Your task to perform on an android device: Open wifi settings Image 0: 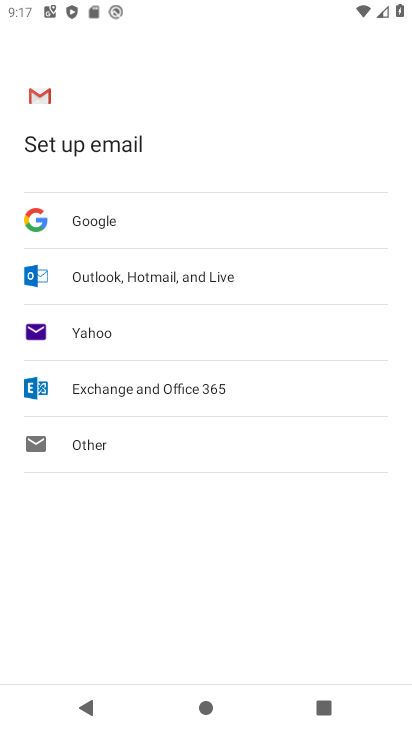
Step 0: press home button
Your task to perform on an android device: Open wifi settings Image 1: 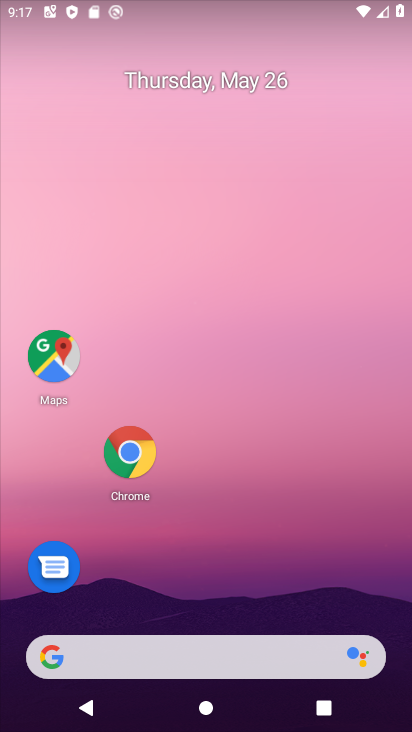
Step 1: drag from (147, 660) to (289, 105)
Your task to perform on an android device: Open wifi settings Image 2: 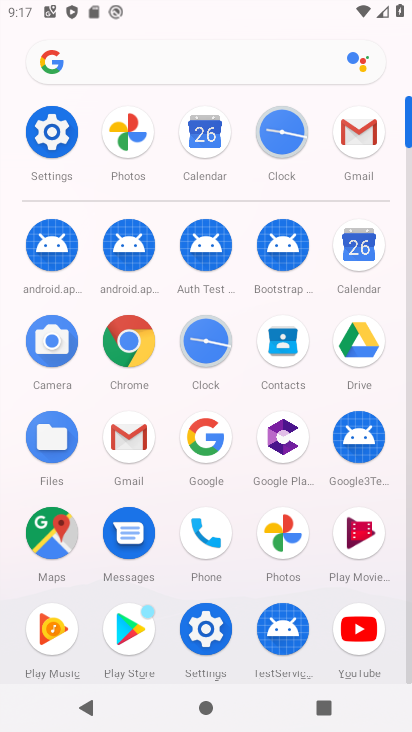
Step 2: click (54, 138)
Your task to perform on an android device: Open wifi settings Image 3: 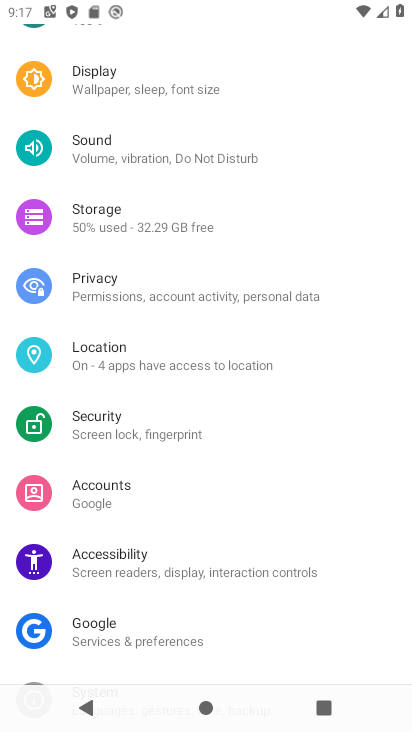
Step 3: drag from (307, 89) to (304, 595)
Your task to perform on an android device: Open wifi settings Image 4: 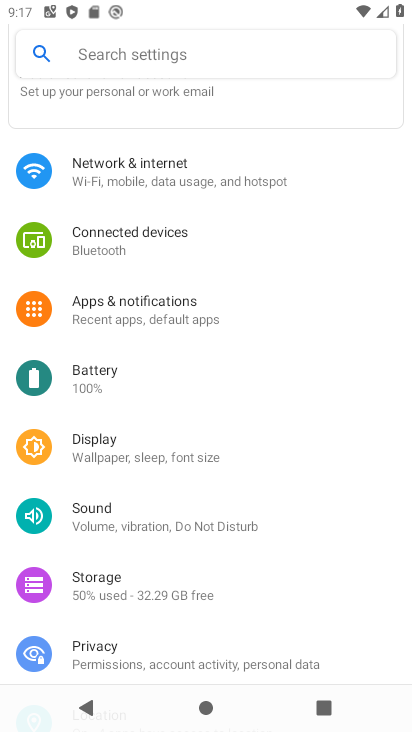
Step 4: click (132, 174)
Your task to perform on an android device: Open wifi settings Image 5: 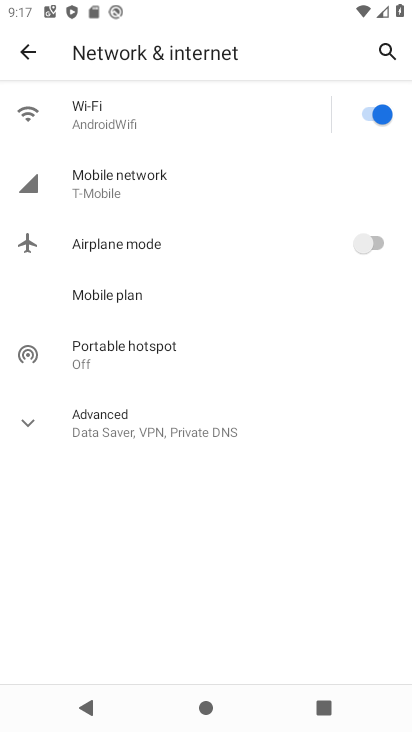
Step 5: click (105, 121)
Your task to perform on an android device: Open wifi settings Image 6: 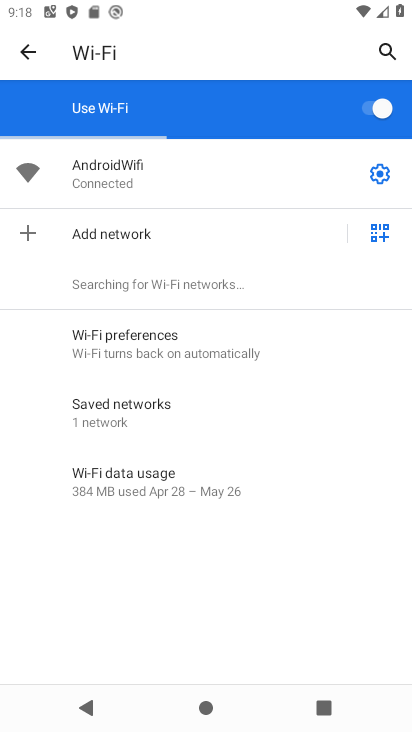
Step 6: task complete